Your task to perform on an android device: see creations saved in the google photos Image 0: 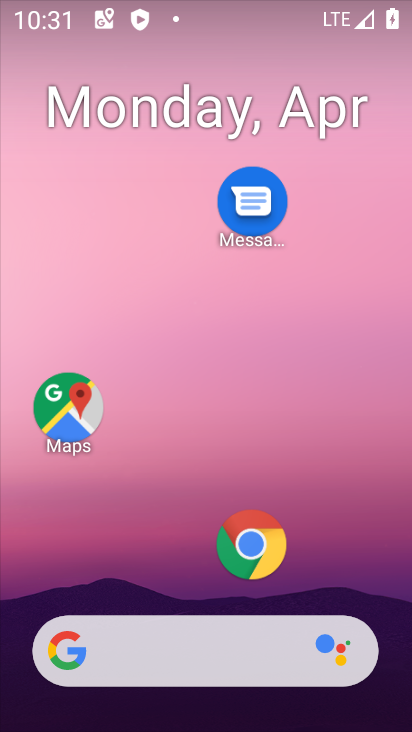
Step 0: press home button
Your task to perform on an android device: see creations saved in the google photos Image 1: 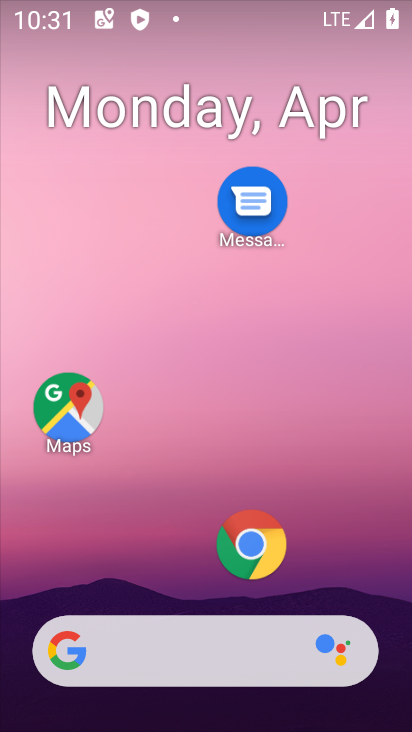
Step 1: drag from (203, 598) to (201, 145)
Your task to perform on an android device: see creations saved in the google photos Image 2: 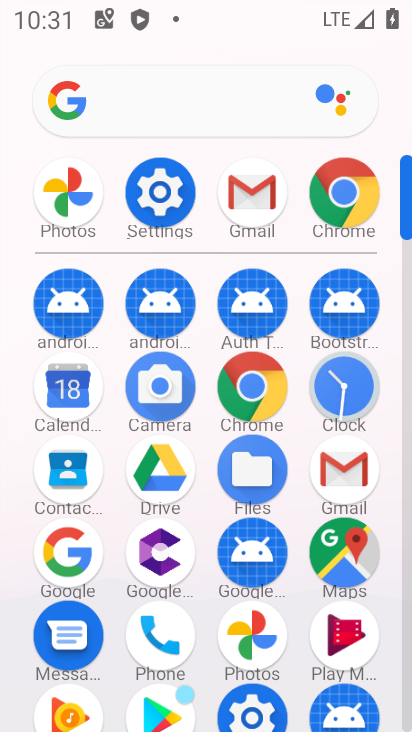
Step 2: click (254, 627)
Your task to perform on an android device: see creations saved in the google photos Image 3: 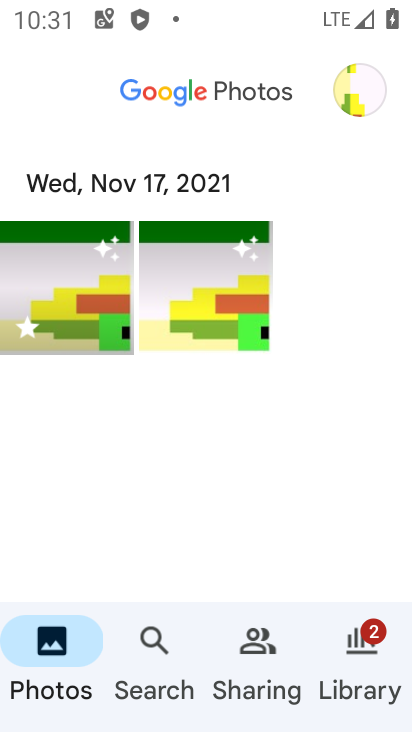
Step 3: click (147, 656)
Your task to perform on an android device: see creations saved in the google photos Image 4: 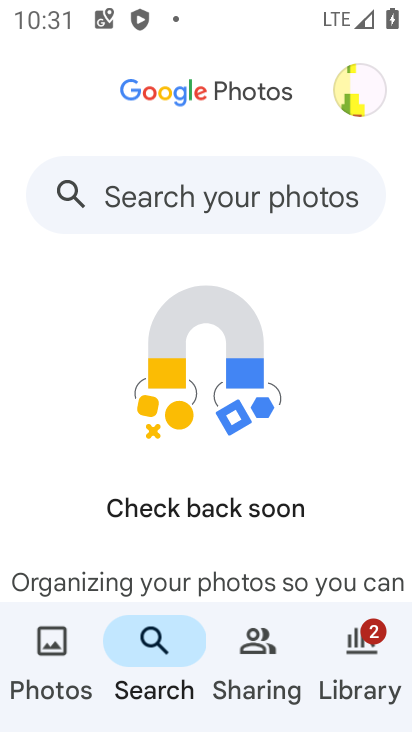
Step 4: click (152, 625)
Your task to perform on an android device: see creations saved in the google photos Image 5: 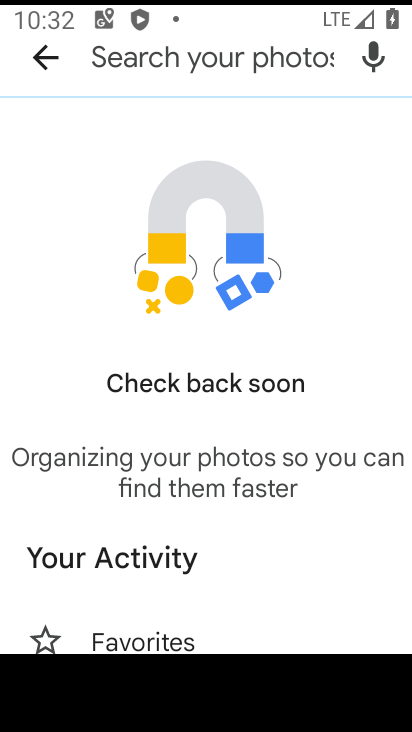
Step 5: drag from (215, 602) to (228, 144)
Your task to perform on an android device: see creations saved in the google photos Image 6: 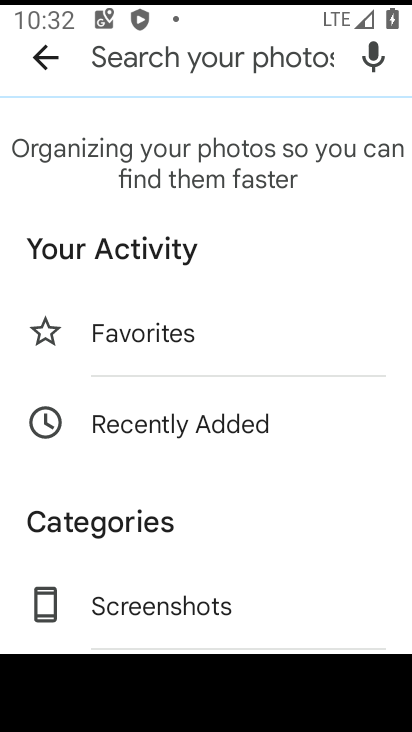
Step 6: drag from (222, 578) to (217, 189)
Your task to perform on an android device: see creations saved in the google photos Image 7: 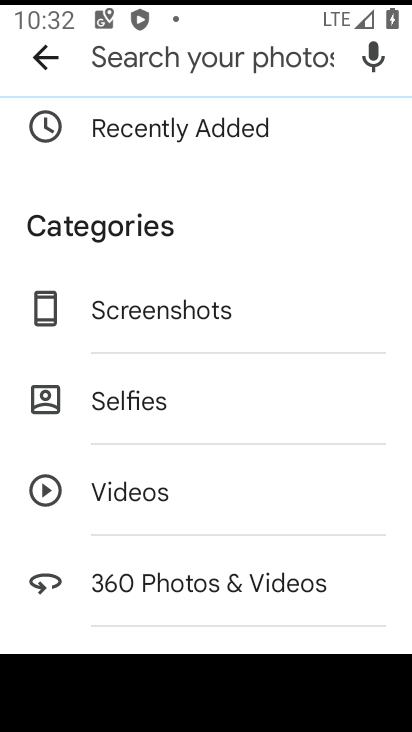
Step 7: drag from (160, 549) to (168, 154)
Your task to perform on an android device: see creations saved in the google photos Image 8: 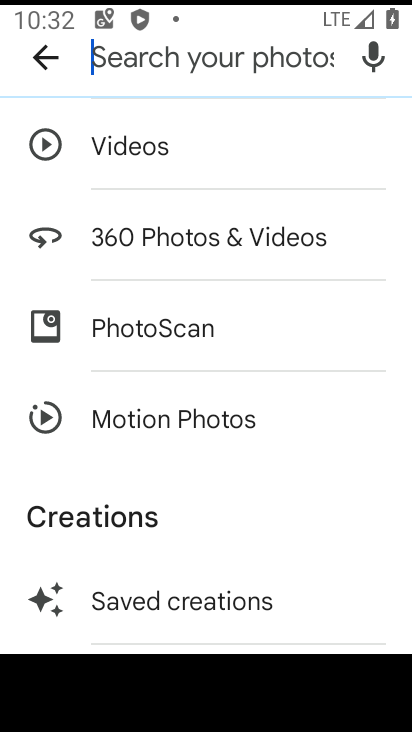
Step 8: click (149, 599)
Your task to perform on an android device: see creations saved in the google photos Image 9: 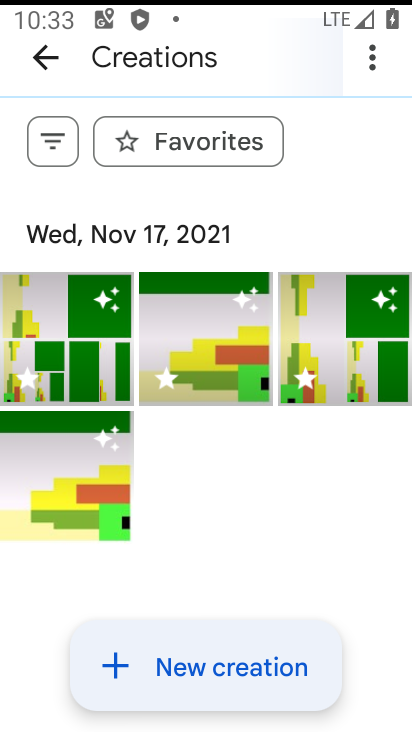
Step 9: task complete